Your task to perform on an android device: remove spam from my inbox in the gmail app Image 0: 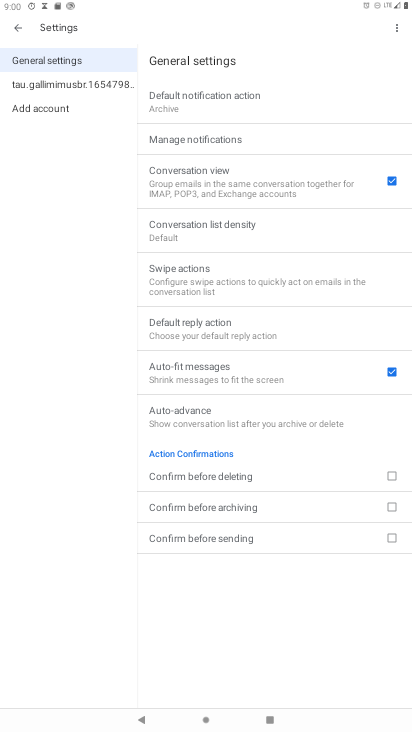
Step 0: press back button
Your task to perform on an android device: remove spam from my inbox in the gmail app Image 1: 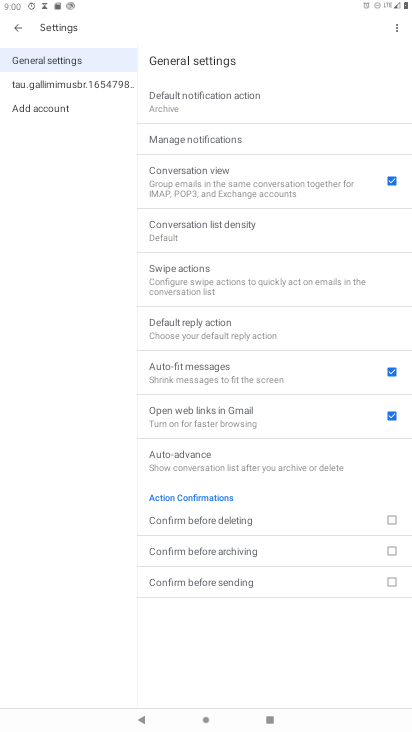
Step 1: task complete